Your task to perform on an android device: change the clock style Image 0: 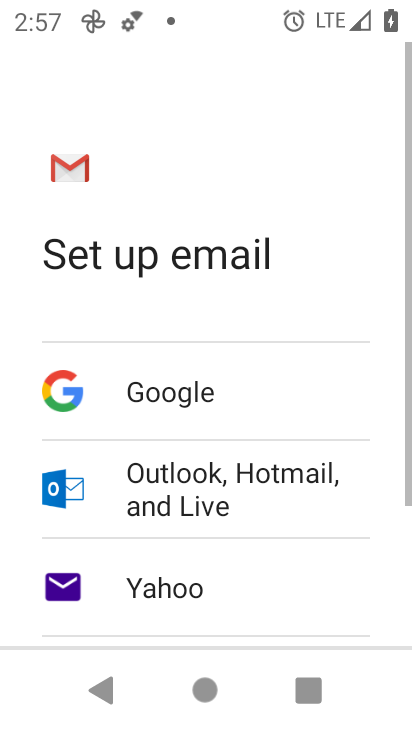
Step 0: press home button
Your task to perform on an android device: change the clock style Image 1: 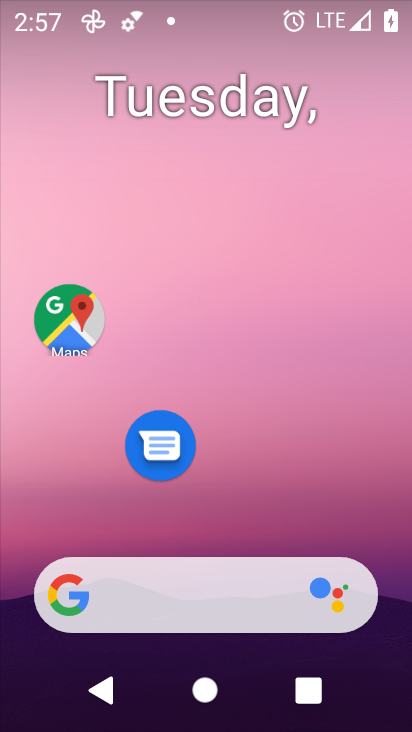
Step 1: drag from (299, 483) to (193, 88)
Your task to perform on an android device: change the clock style Image 2: 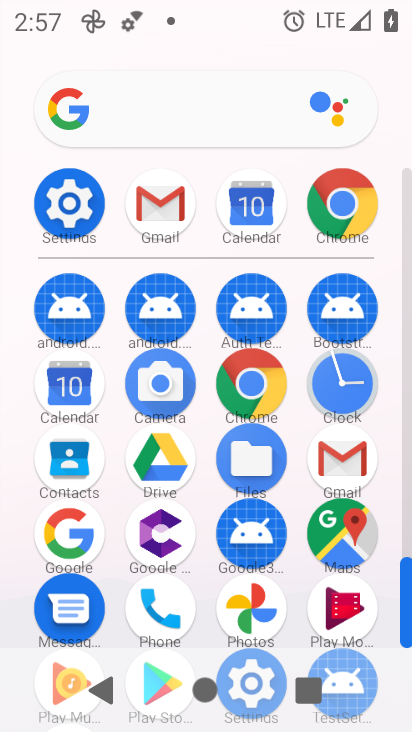
Step 2: click (344, 387)
Your task to perform on an android device: change the clock style Image 3: 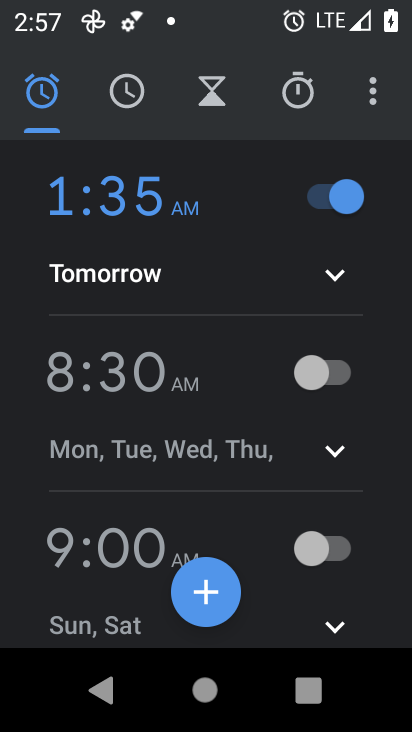
Step 3: click (371, 93)
Your task to perform on an android device: change the clock style Image 4: 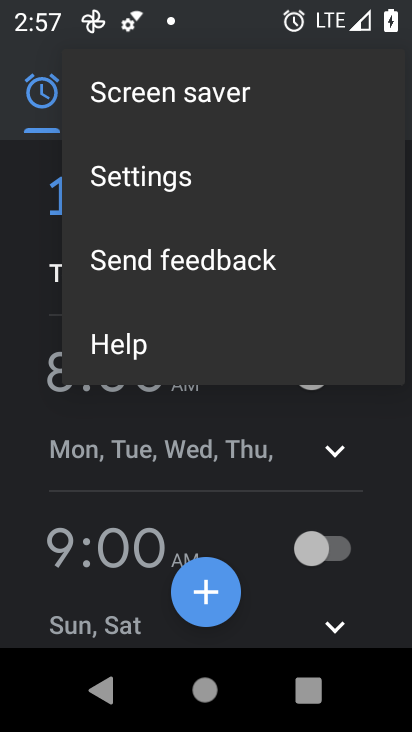
Step 4: click (147, 185)
Your task to perform on an android device: change the clock style Image 5: 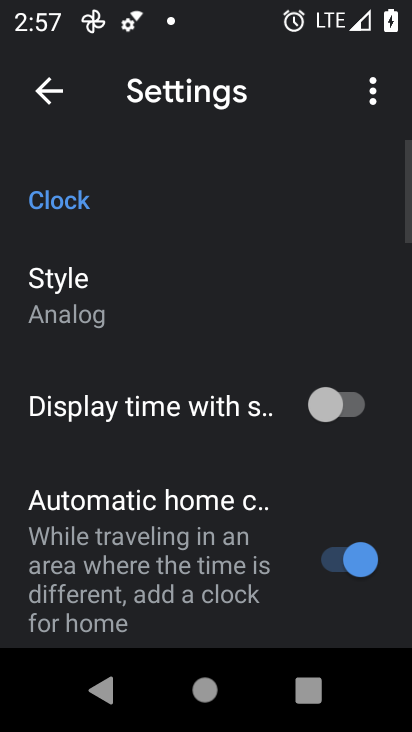
Step 5: click (71, 302)
Your task to perform on an android device: change the clock style Image 6: 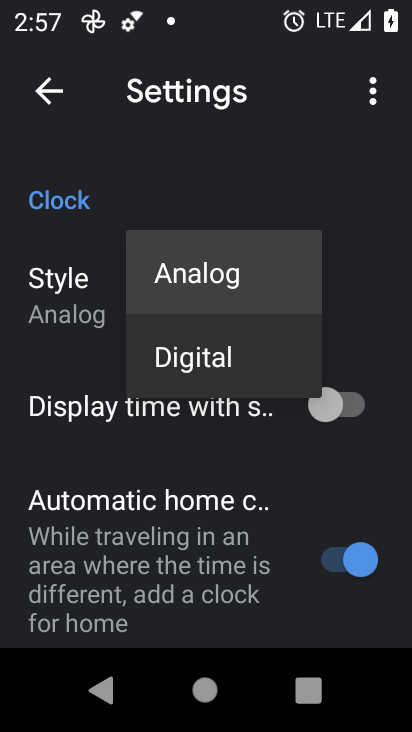
Step 6: click (178, 353)
Your task to perform on an android device: change the clock style Image 7: 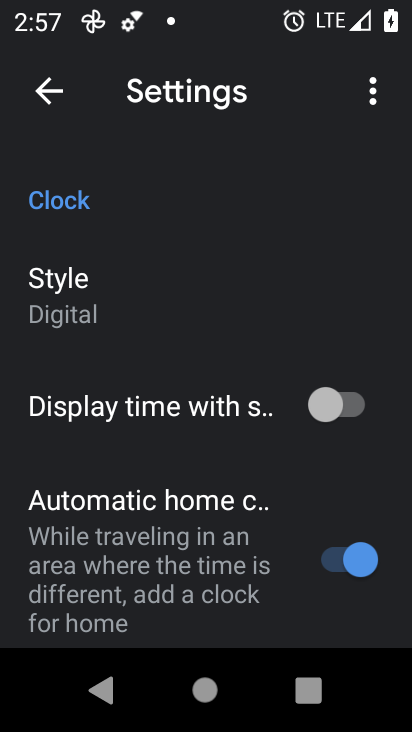
Step 7: task complete